Your task to perform on an android device: toggle javascript in the chrome app Image 0: 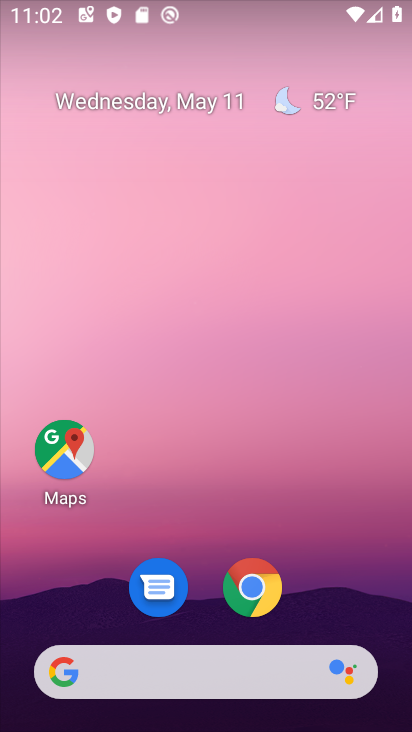
Step 0: drag from (220, 708) to (251, 148)
Your task to perform on an android device: toggle javascript in the chrome app Image 1: 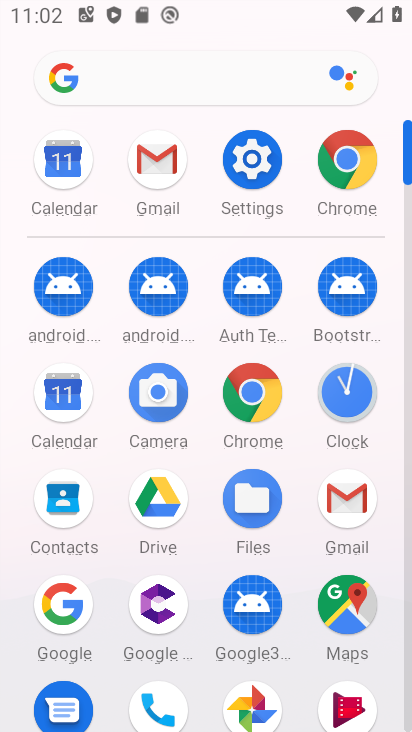
Step 1: click (349, 176)
Your task to perform on an android device: toggle javascript in the chrome app Image 2: 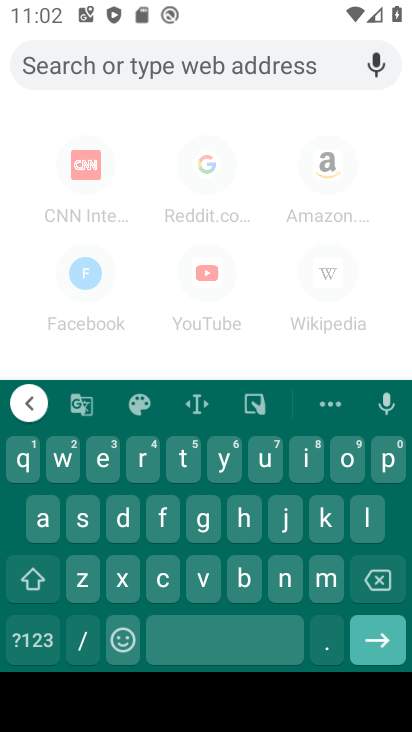
Step 2: press back button
Your task to perform on an android device: toggle javascript in the chrome app Image 3: 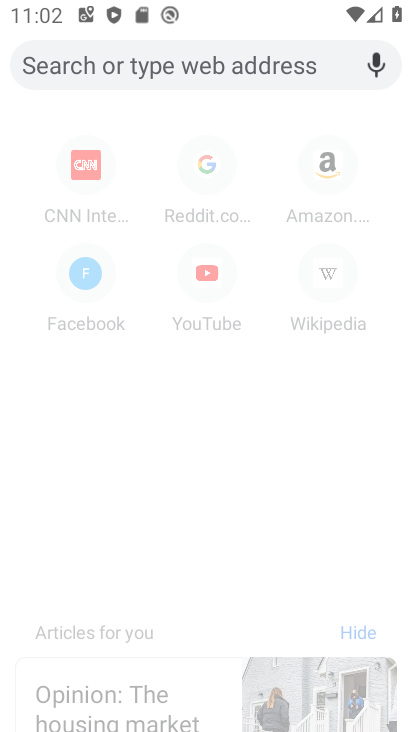
Step 3: press back button
Your task to perform on an android device: toggle javascript in the chrome app Image 4: 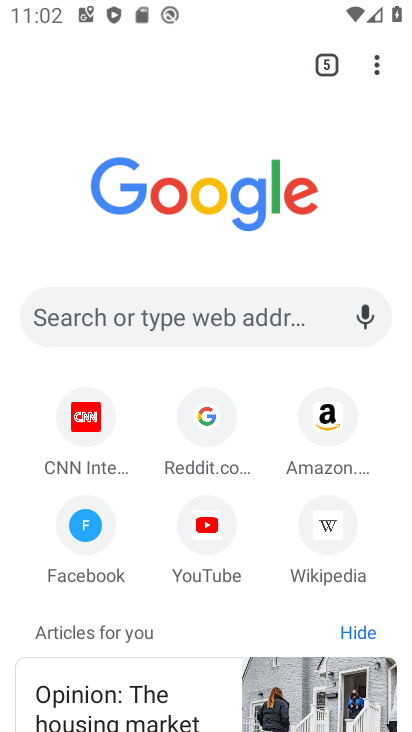
Step 4: click (372, 81)
Your task to perform on an android device: toggle javascript in the chrome app Image 5: 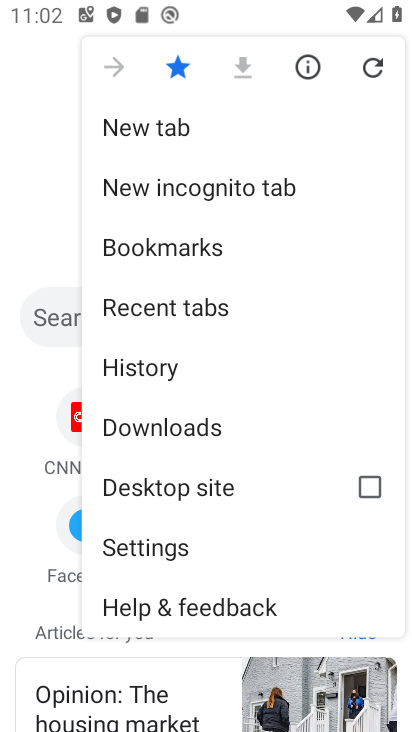
Step 5: click (143, 548)
Your task to perform on an android device: toggle javascript in the chrome app Image 6: 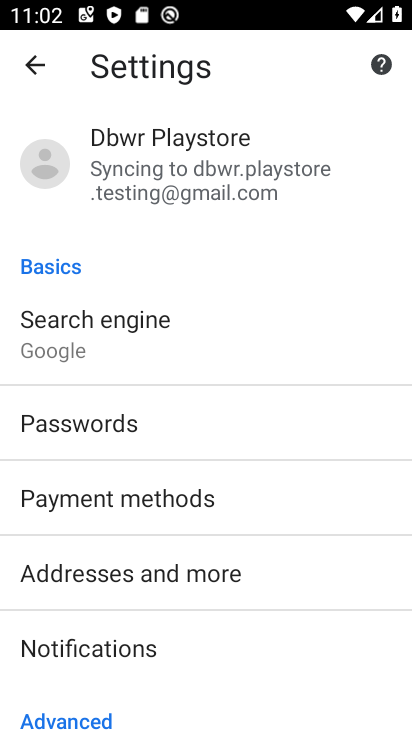
Step 6: drag from (143, 549) to (209, 450)
Your task to perform on an android device: toggle javascript in the chrome app Image 7: 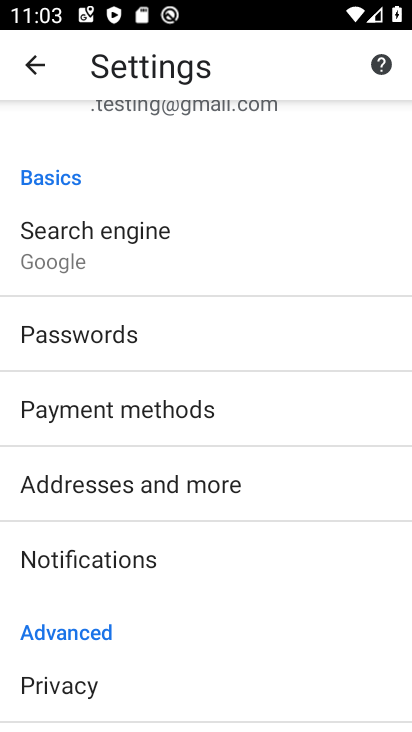
Step 7: drag from (133, 588) to (171, 422)
Your task to perform on an android device: toggle javascript in the chrome app Image 8: 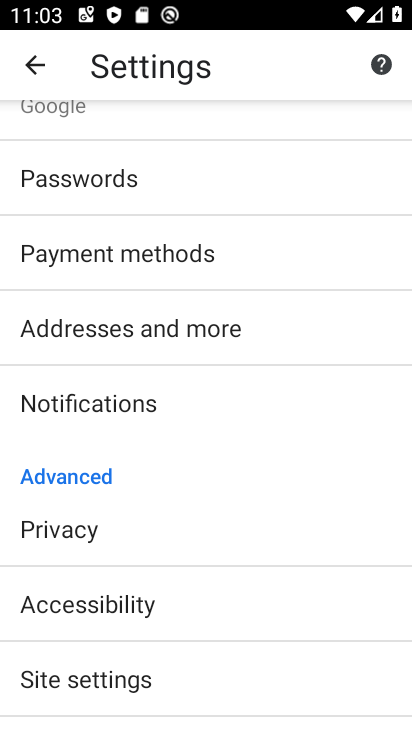
Step 8: click (58, 686)
Your task to perform on an android device: toggle javascript in the chrome app Image 9: 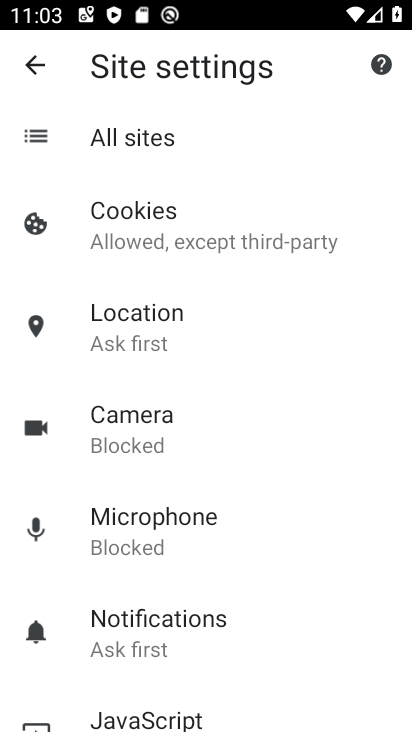
Step 9: click (121, 712)
Your task to perform on an android device: toggle javascript in the chrome app Image 10: 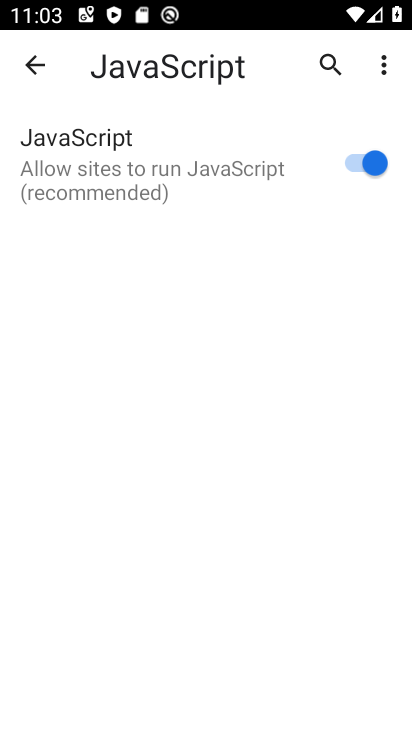
Step 10: task complete